Your task to perform on an android device: find which apps use the phone's location Image 0: 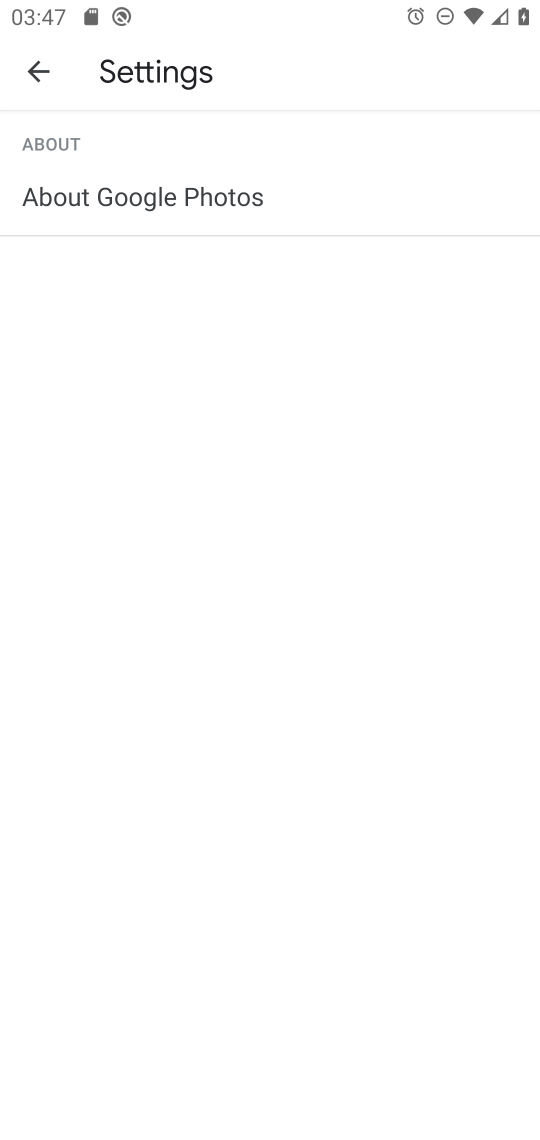
Step 0: press home button
Your task to perform on an android device: find which apps use the phone's location Image 1: 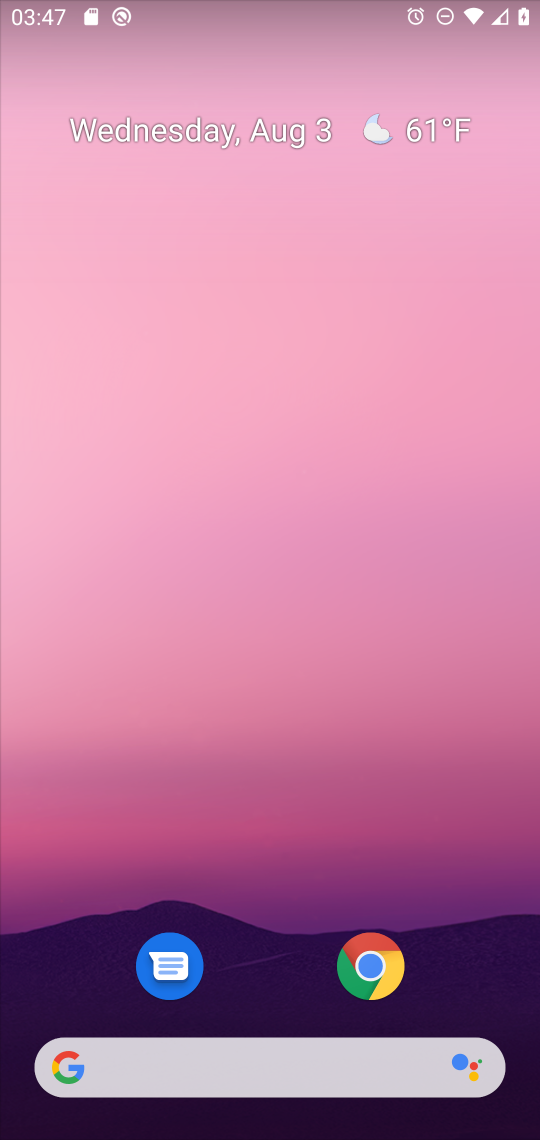
Step 1: drag from (219, 1015) to (190, 421)
Your task to perform on an android device: find which apps use the phone's location Image 2: 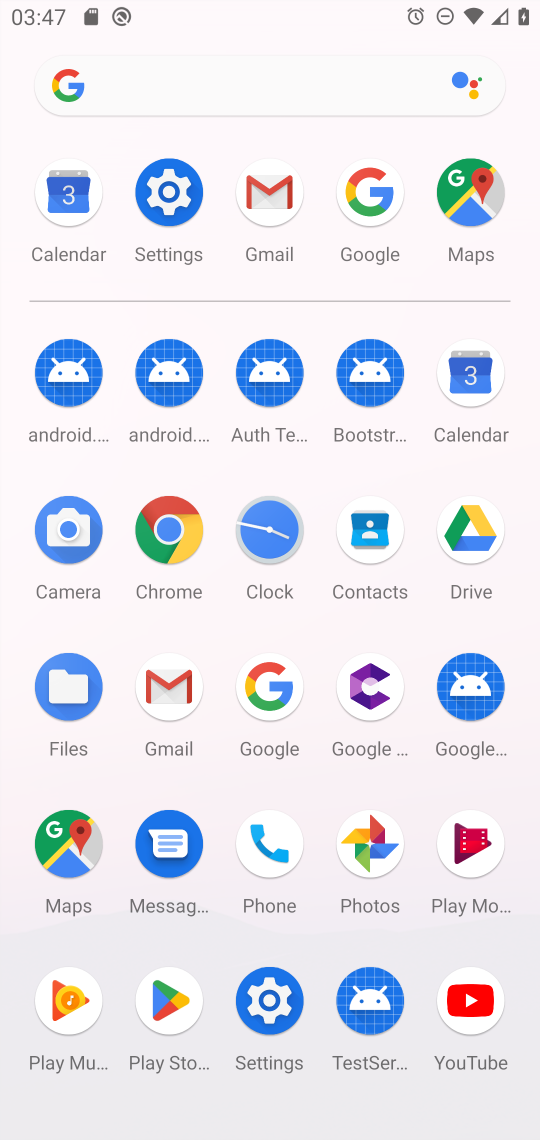
Step 2: click (187, 221)
Your task to perform on an android device: find which apps use the phone's location Image 3: 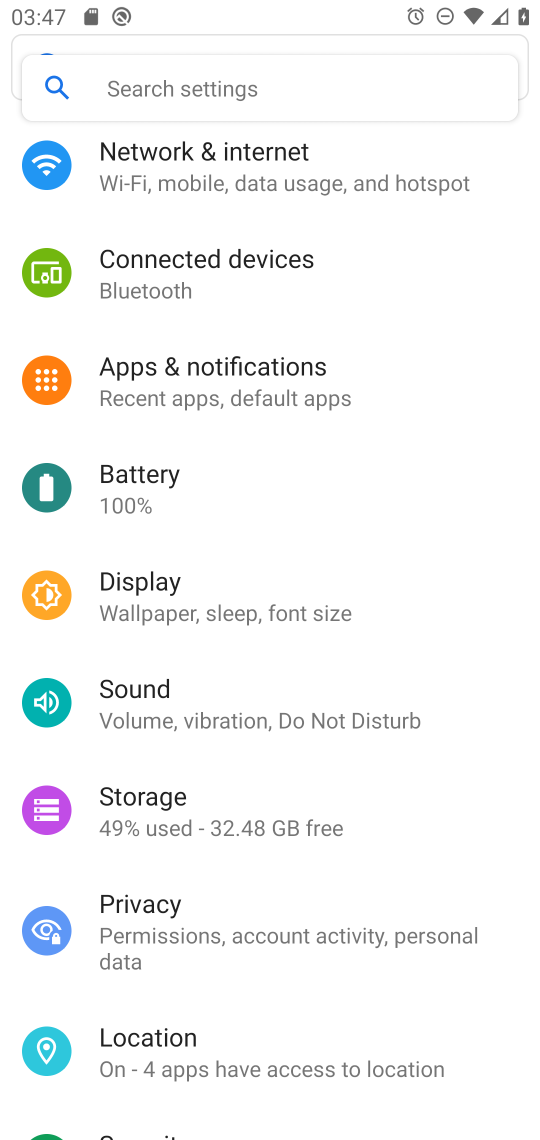
Step 3: click (269, 1036)
Your task to perform on an android device: find which apps use the phone's location Image 4: 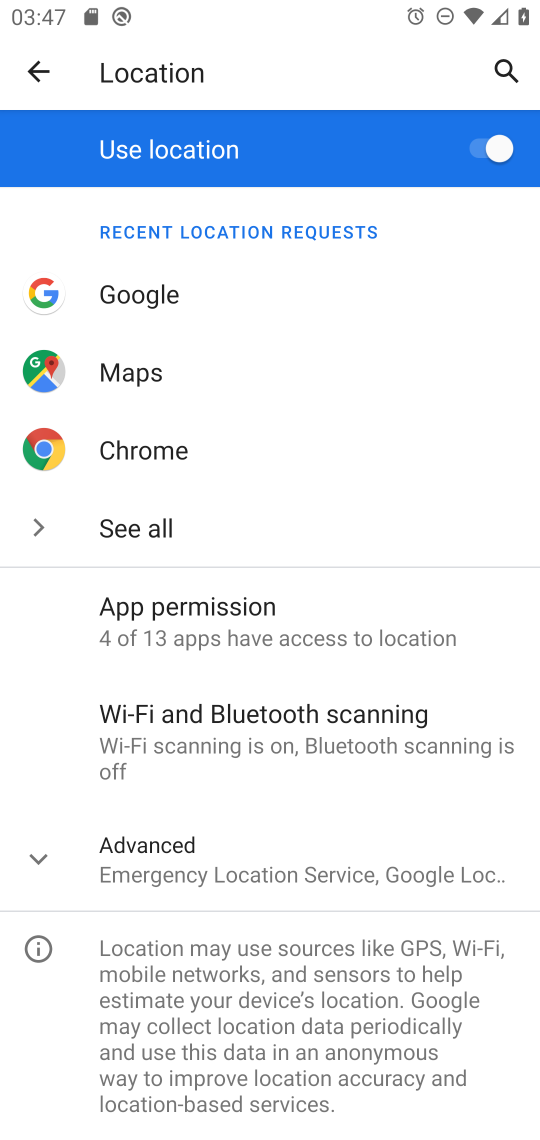
Step 4: click (160, 655)
Your task to perform on an android device: find which apps use the phone's location Image 5: 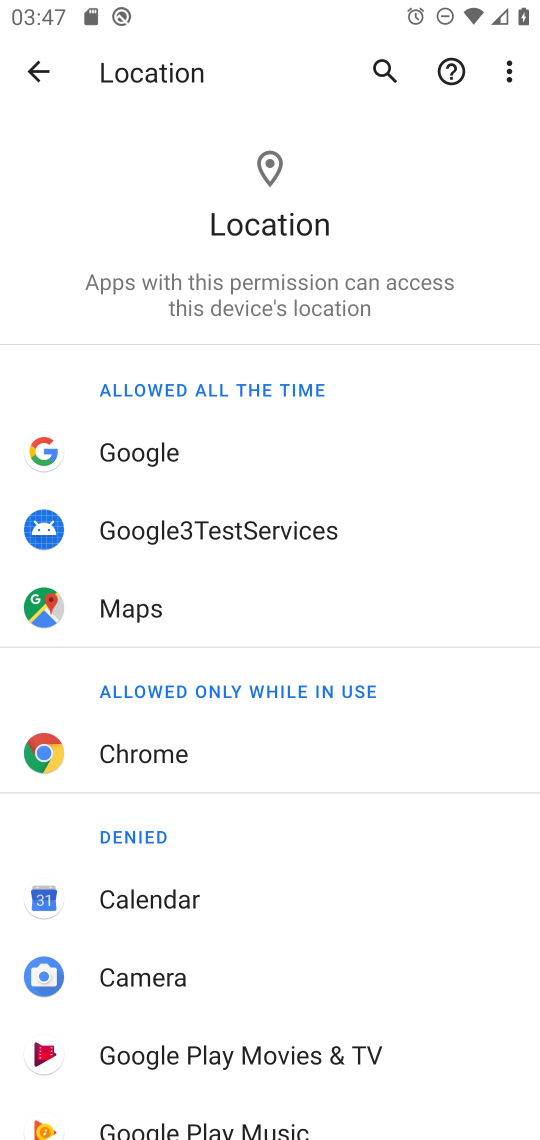
Step 5: task complete